Your task to perform on an android device: Is it going to rain this weekend? Image 0: 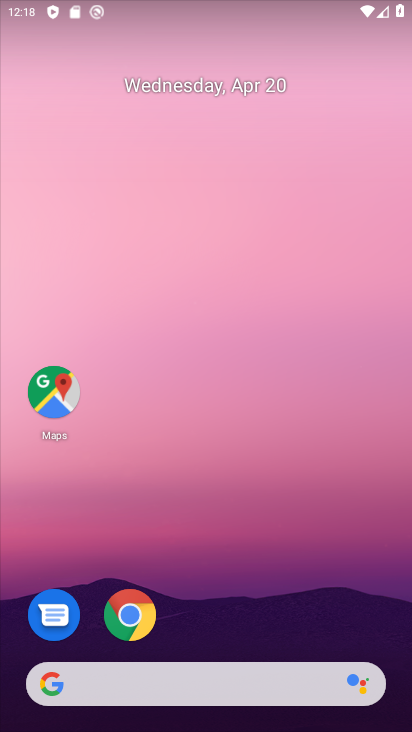
Step 0: drag from (283, 596) to (295, 106)
Your task to perform on an android device: Is it going to rain this weekend? Image 1: 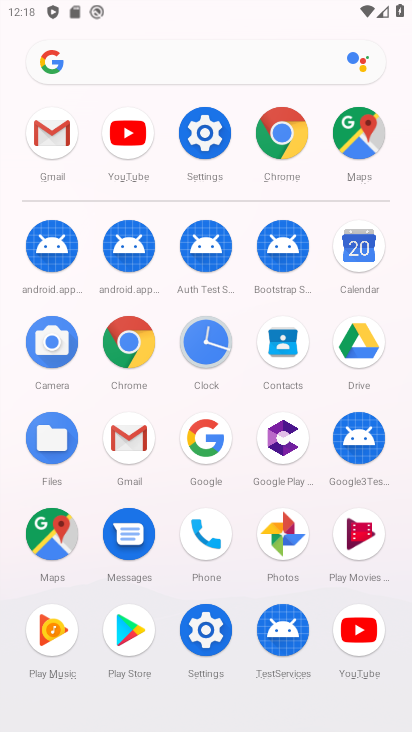
Step 1: click (206, 437)
Your task to perform on an android device: Is it going to rain this weekend? Image 2: 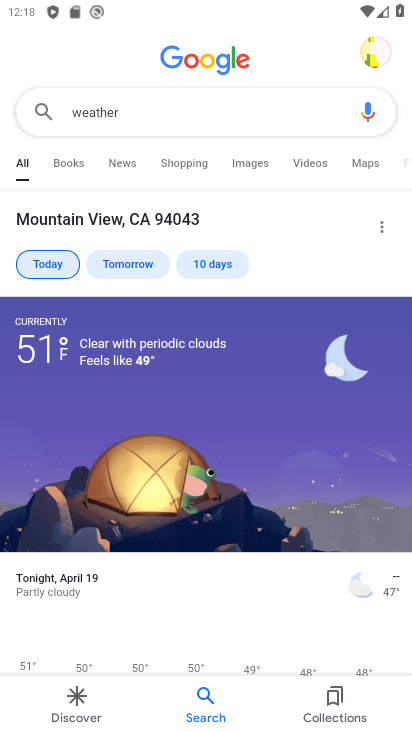
Step 2: click (212, 101)
Your task to perform on an android device: Is it going to rain this weekend? Image 3: 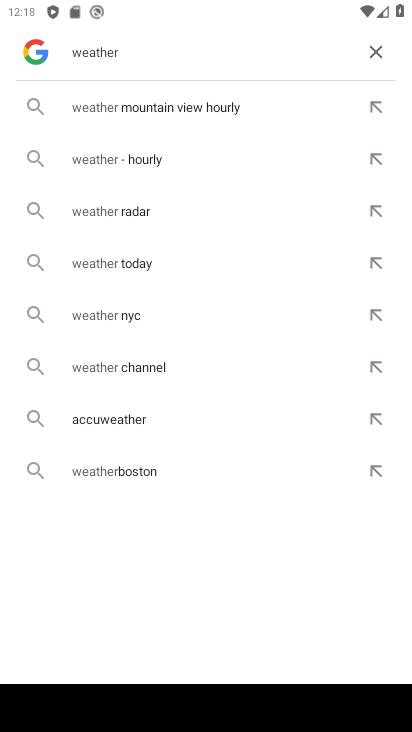
Step 3: drag from (177, 66) to (319, 14)
Your task to perform on an android device: Is it going to rain this weekend? Image 4: 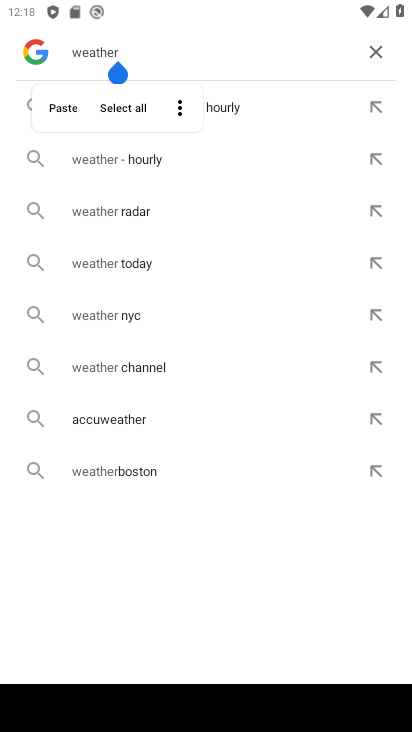
Step 4: click (381, 45)
Your task to perform on an android device: Is it going to rain this weekend? Image 5: 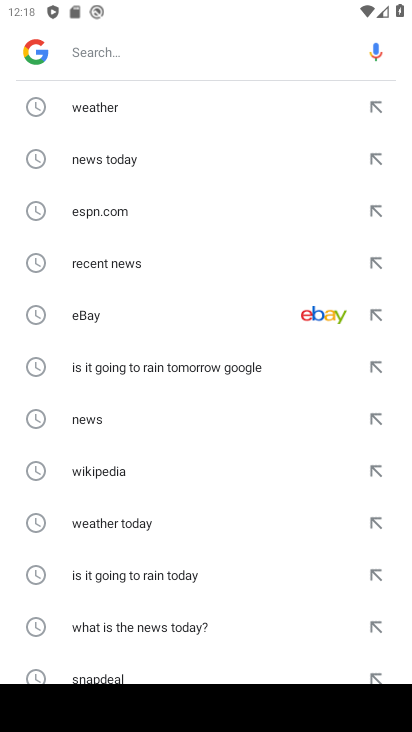
Step 5: type "is it going to rain this weekend"
Your task to perform on an android device: Is it going to rain this weekend? Image 6: 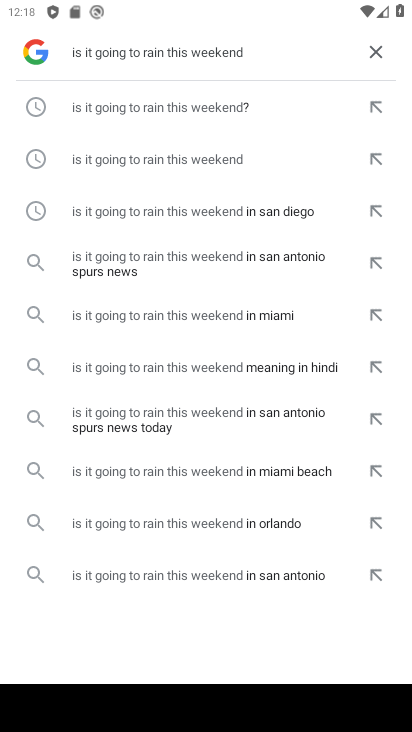
Step 6: click (238, 109)
Your task to perform on an android device: Is it going to rain this weekend? Image 7: 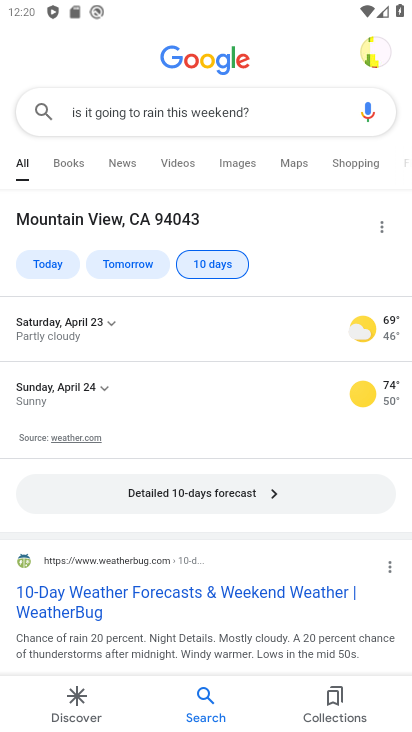
Step 7: task complete